Your task to perform on an android device: Open Youtube and go to "Your channel" Image 0: 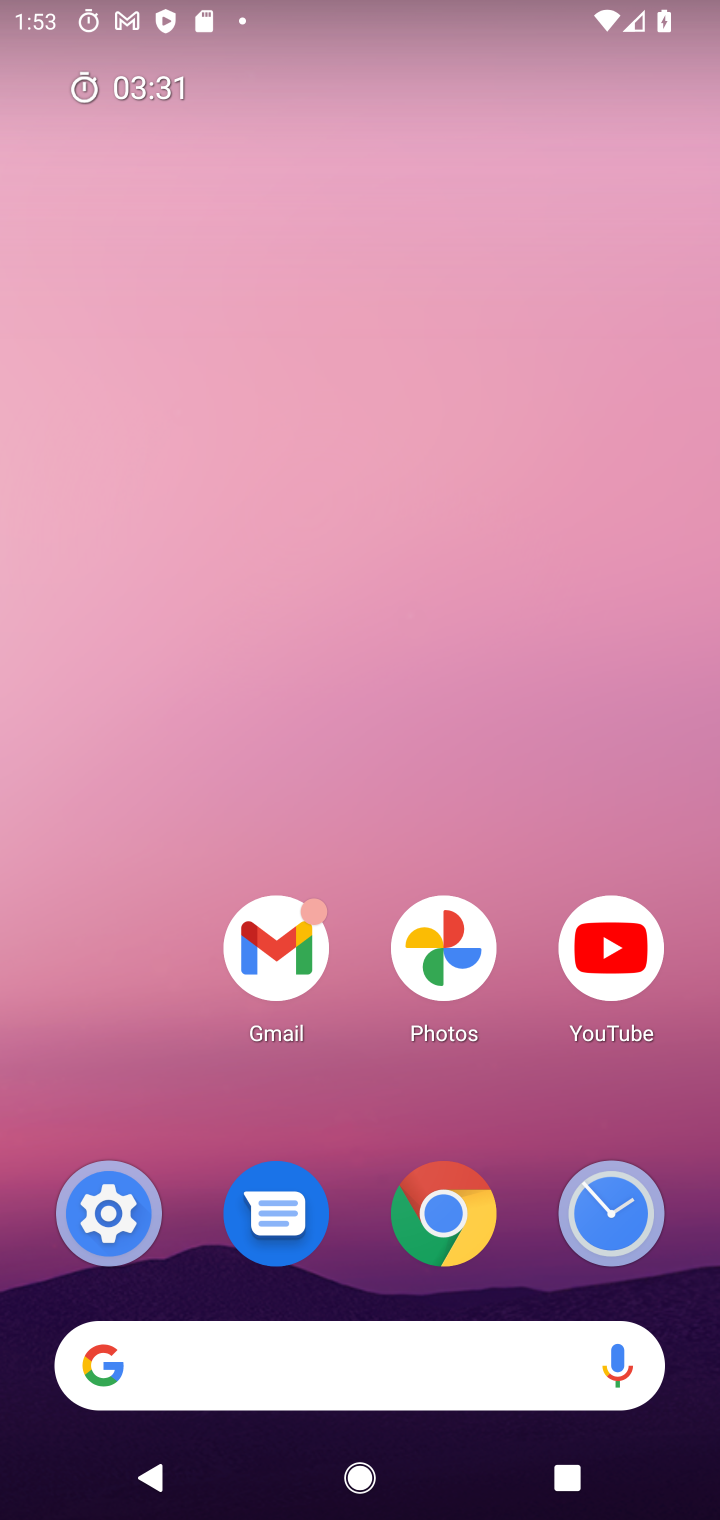
Step 0: drag from (513, 895) to (442, 1)
Your task to perform on an android device: Open Youtube and go to "Your channel" Image 1: 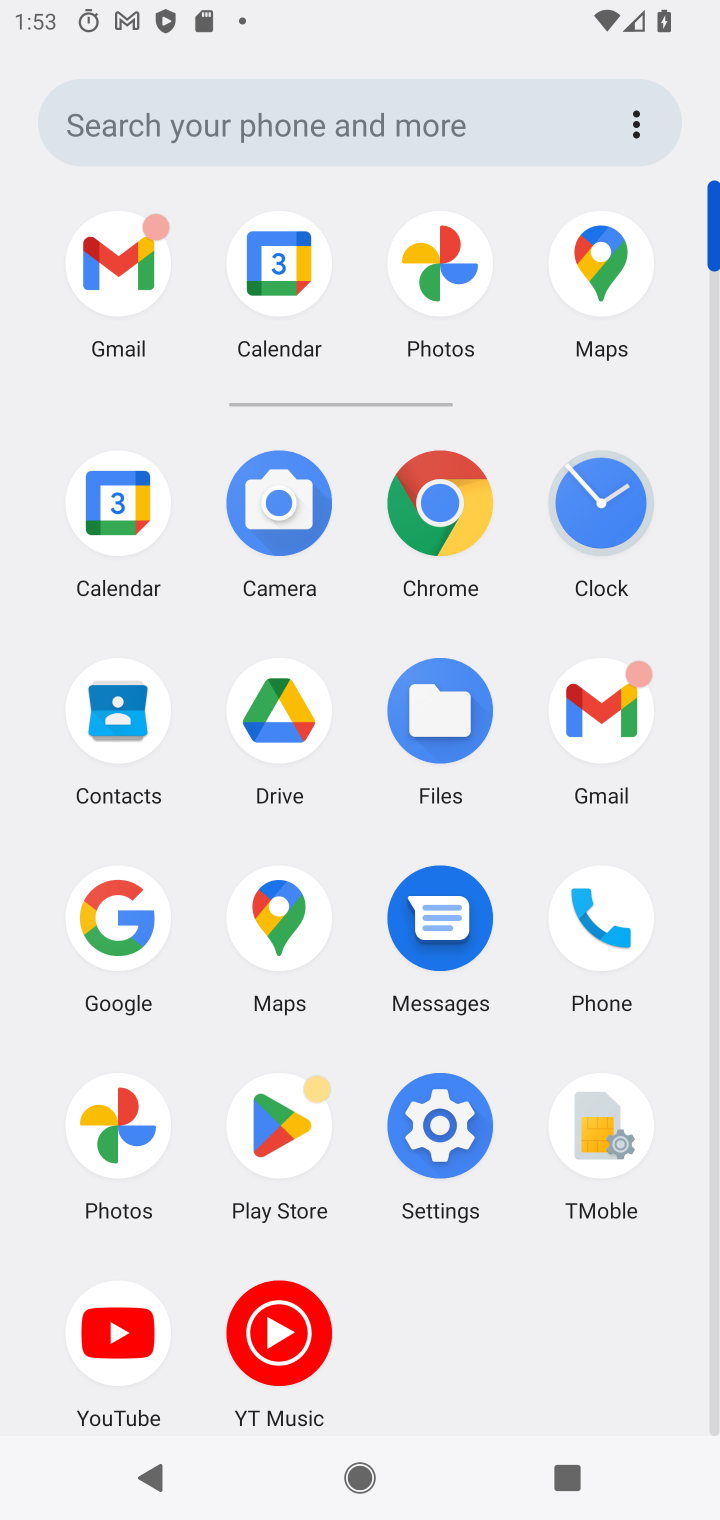
Step 1: click (129, 1338)
Your task to perform on an android device: Open Youtube and go to "Your channel" Image 2: 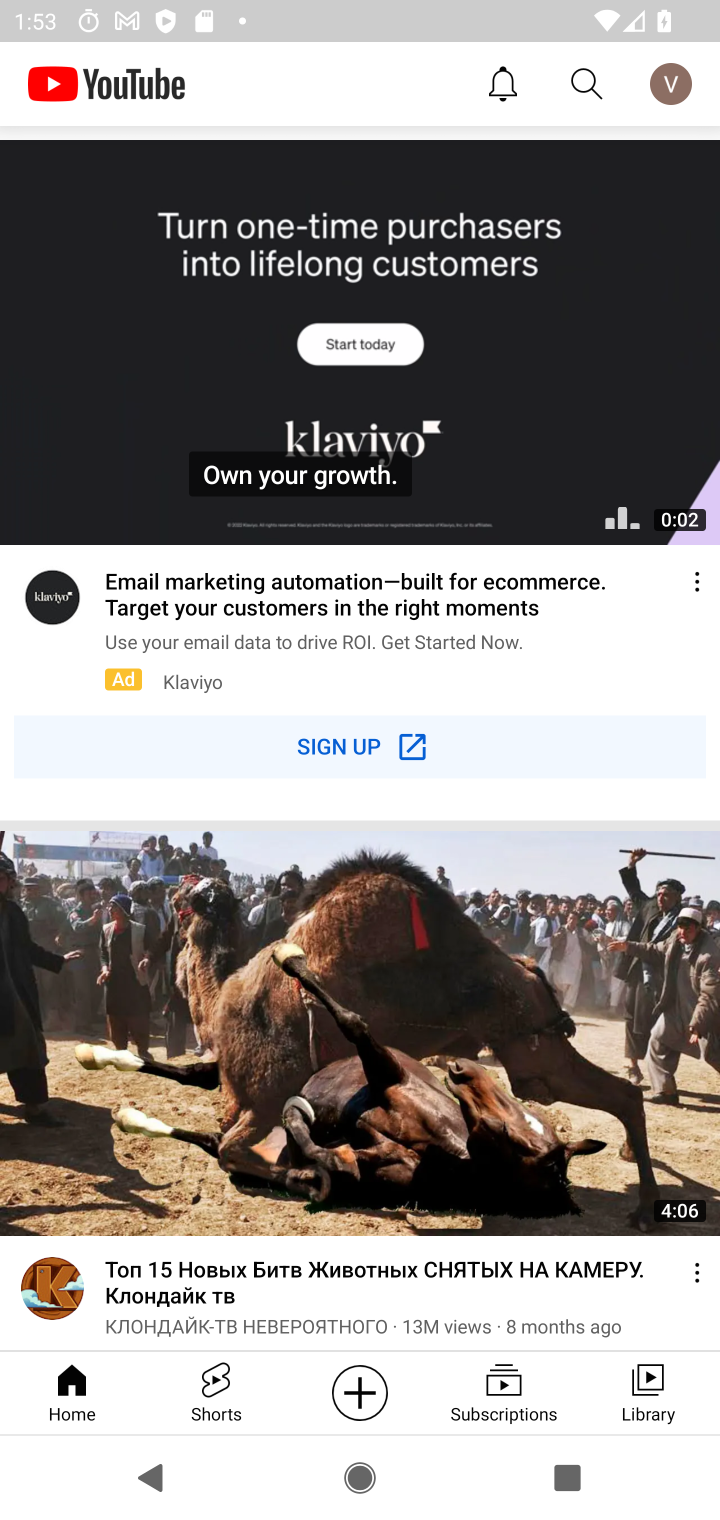
Step 2: click (675, 72)
Your task to perform on an android device: Open Youtube and go to "Your channel" Image 3: 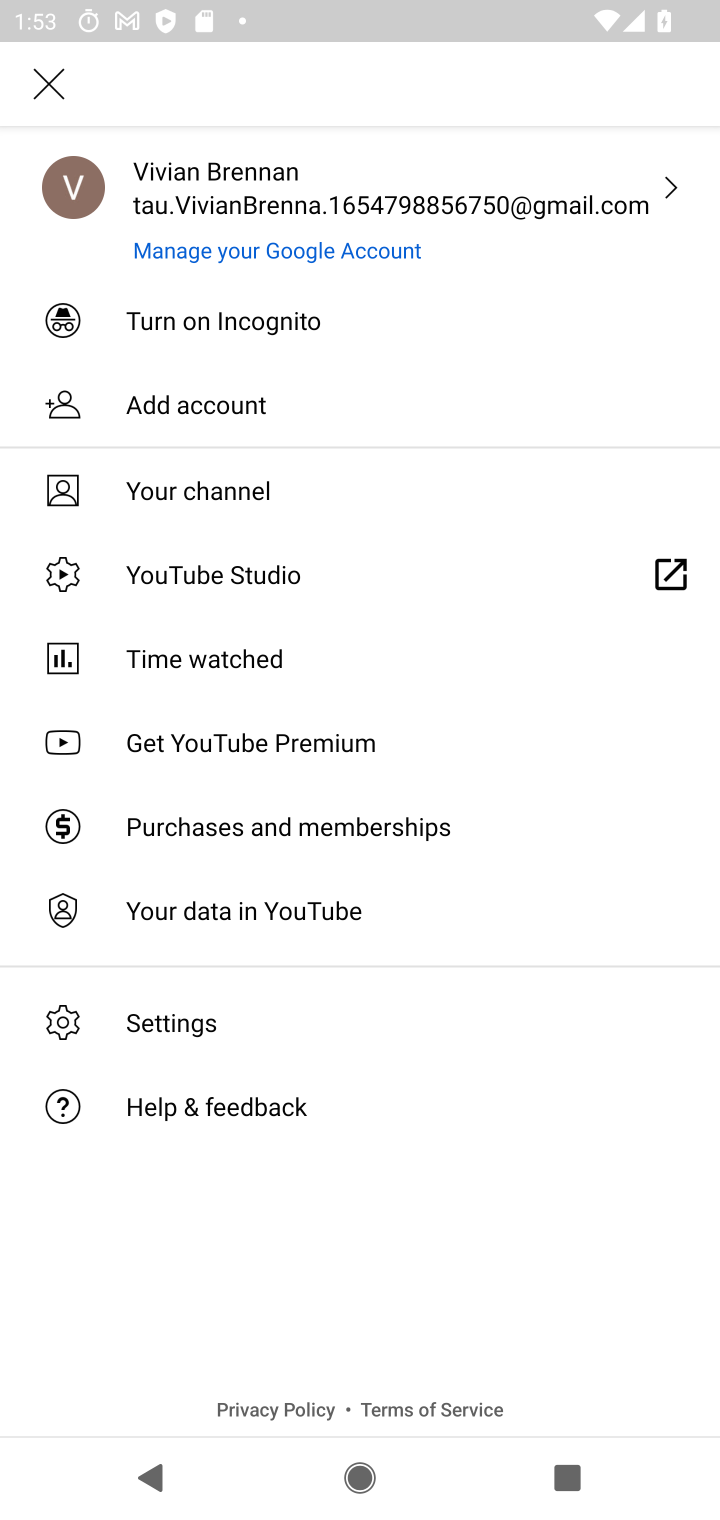
Step 3: click (234, 487)
Your task to perform on an android device: Open Youtube and go to "Your channel" Image 4: 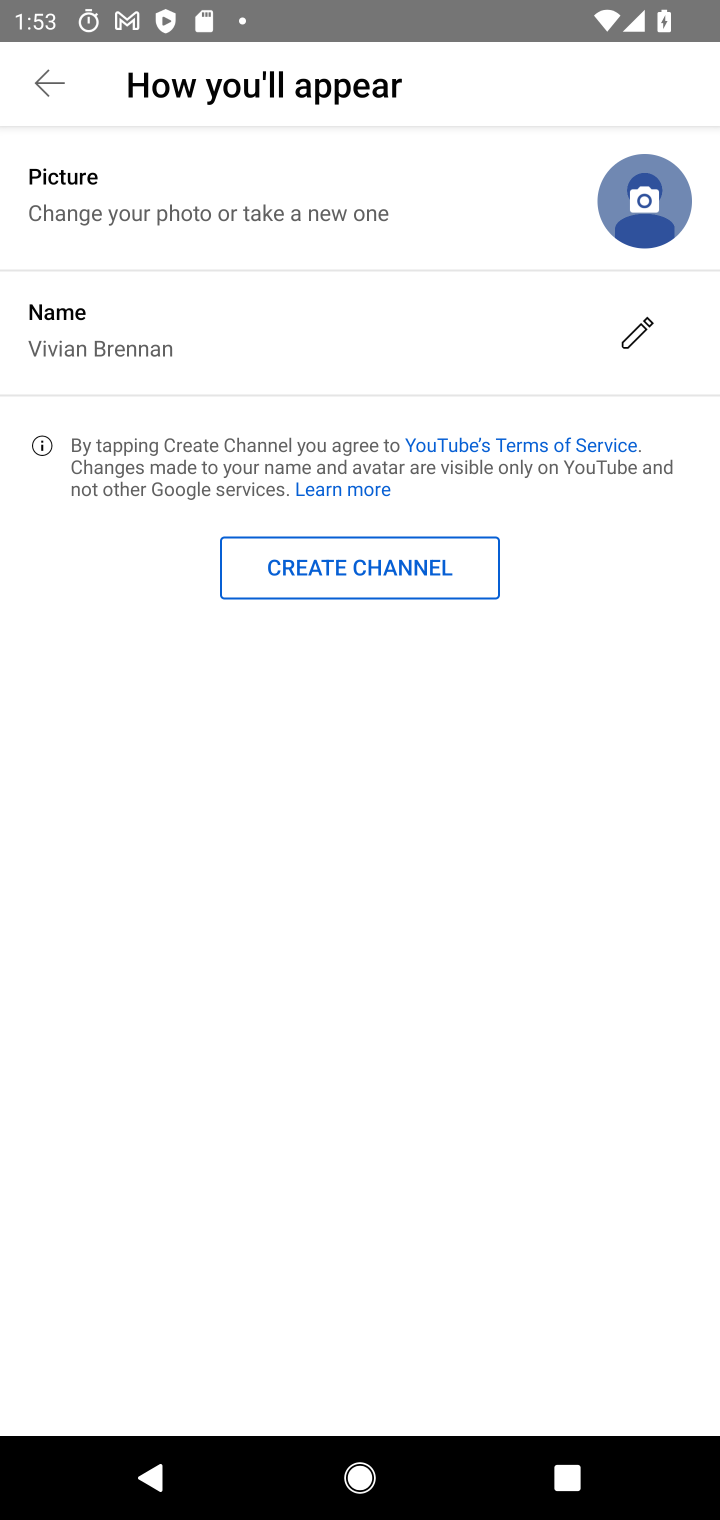
Step 4: task complete